Your task to perform on an android device: open a bookmark in the chrome app Image 0: 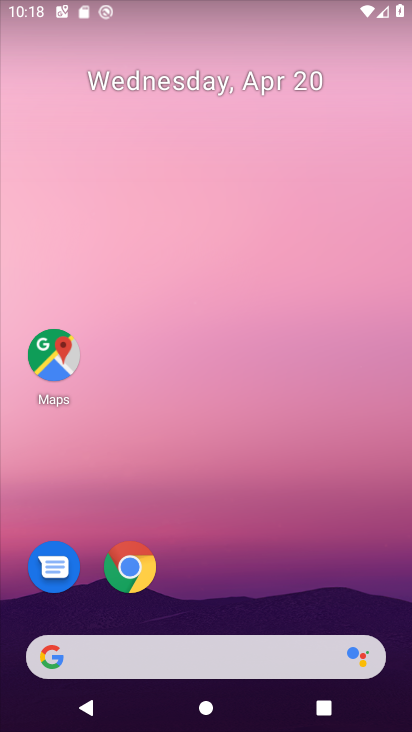
Step 0: drag from (324, 542) to (348, 104)
Your task to perform on an android device: open a bookmark in the chrome app Image 1: 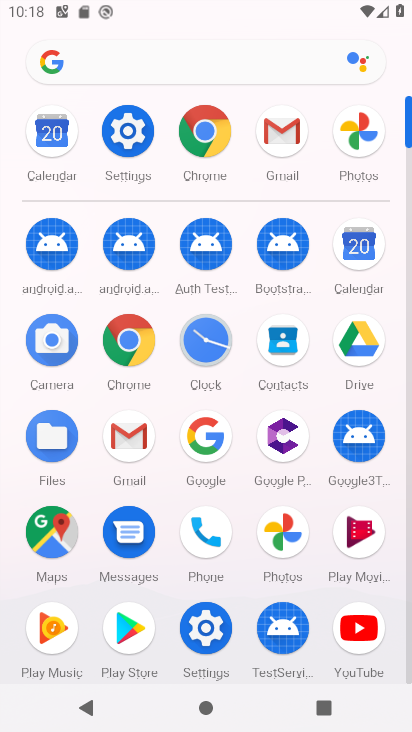
Step 1: click (115, 344)
Your task to perform on an android device: open a bookmark in the chrome app Image 2: 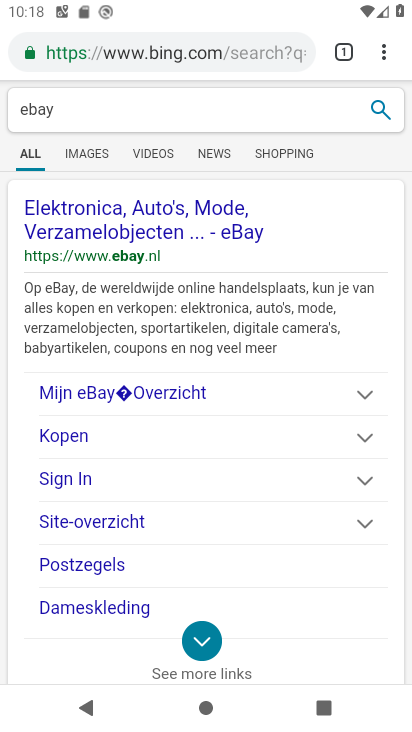
Step 2: click (384, 47)
Your task to perform on an android device: open a bookmark in the chrome app Image 3: 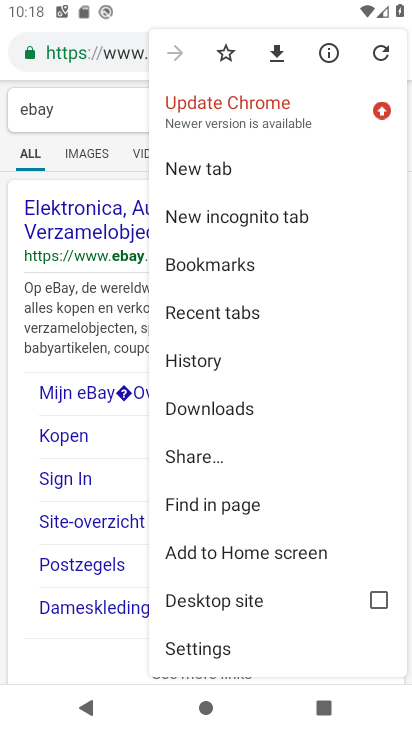
Step 3: click (249, 264)
Your task to perform on an android device: open a bookmark in the chrome app Image 4: 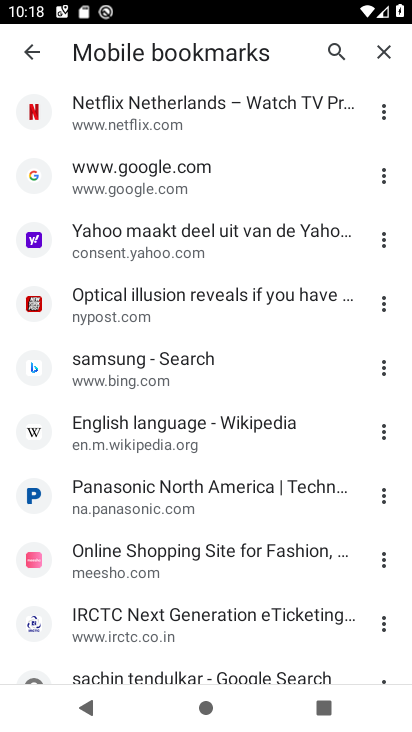
Step 4: click (180, 229)
Your task to perform on an android device: open a bookmark in the chrome app Image 5: 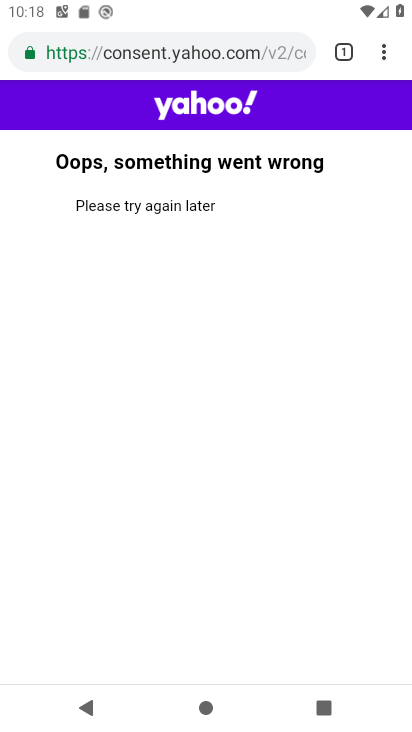
Step 5: task complete